Your task to perform on an android device: Search for pizza restaurants on Maps Image 0: 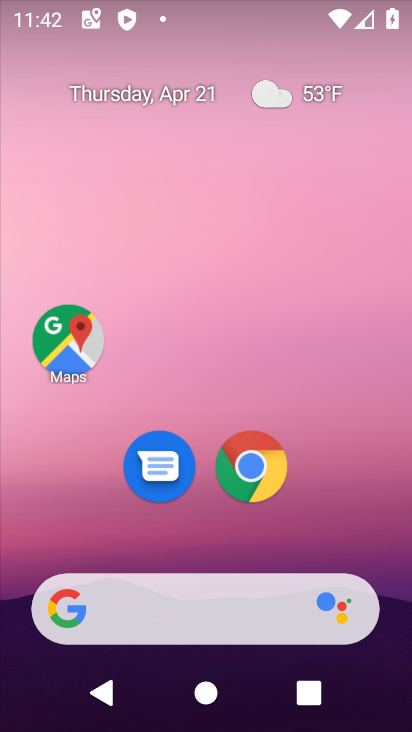
Step 0: drag from (320, 494) to (272, 9)
Your task to perform on an android device: Search for pizza restaurants on Maps Image 1: 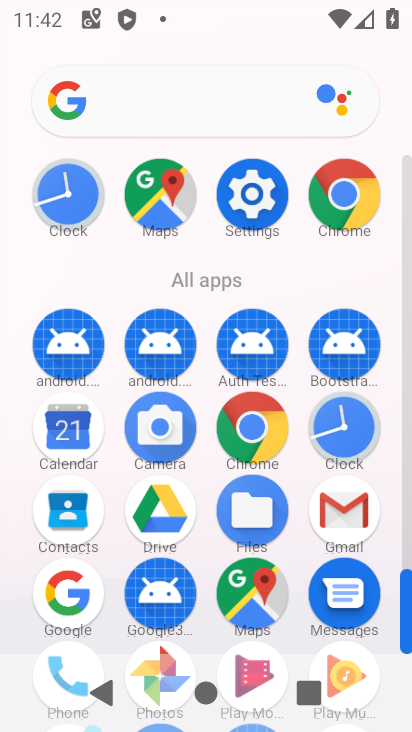
Step 1: drag from (21, 442) to (17, 157)
Your task to perform on an android device: Search for pizza restaurants on Maps Image 2: 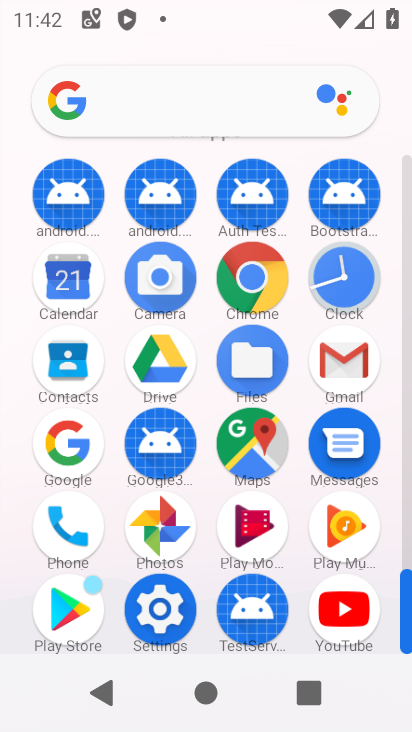
Step 2: click (256, 441)
Your task to perform on an android device: Search for pizza restaurants on Maps Image 3: 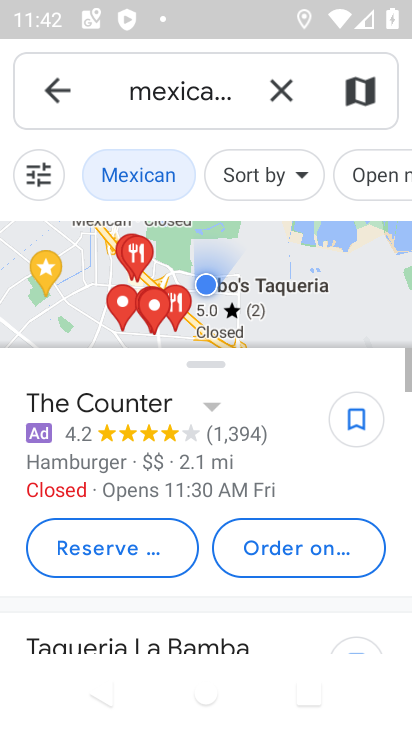
Step 3: click (288, 88)
Your task to perform on an android device: Search for pizza restaurants on Maps Image 4: 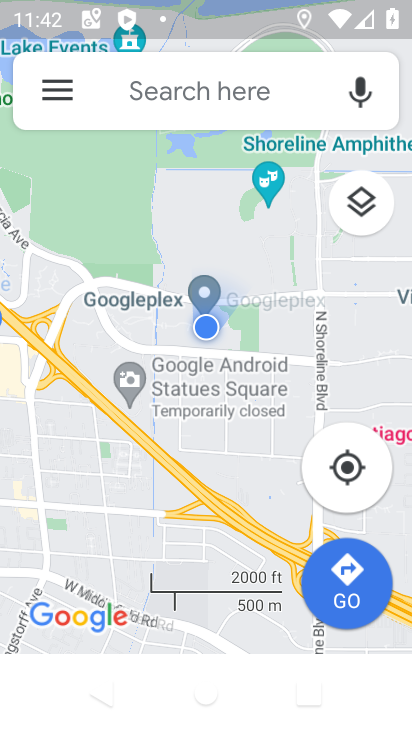
Step 4: click (288, 88)
Your task to perform on an android device: Search for pizza restaurants on Maps Image 5: 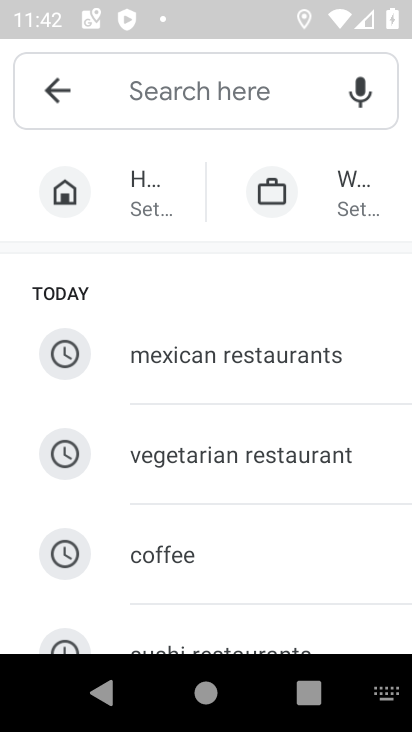
Step 5: drag from (276, 591) to (293, 308)
Your task to perform on an android device: Search for pizza restaurants on Maps Image 6: 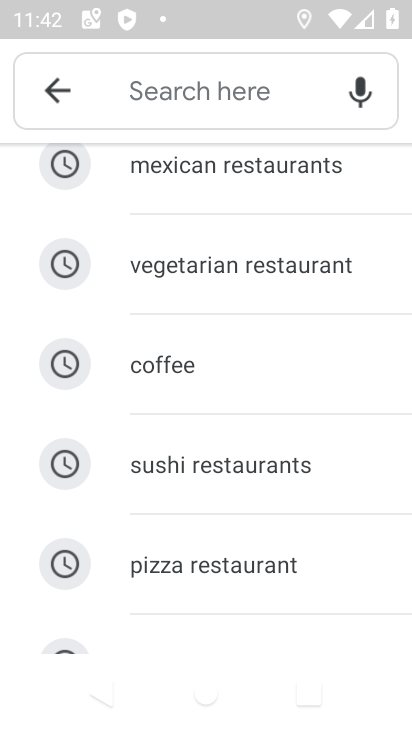
Step 6: click (183, 566)
Your task to perform on an android device: Search for pizza restaurants on Maps Image 7: 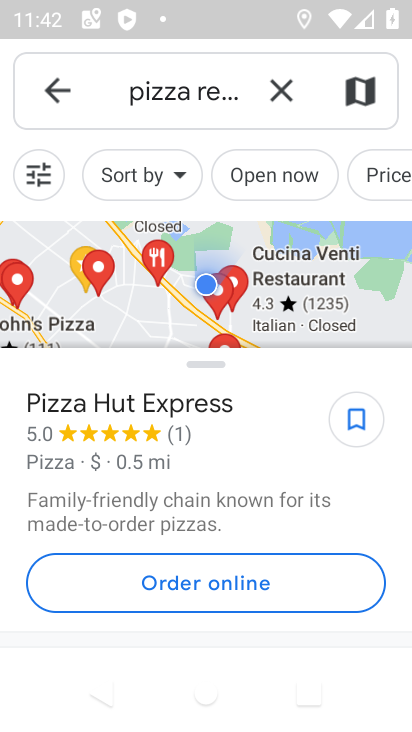
Step 7: task complete